Your task to perform on an android device: Open Reddit.com Image 0: 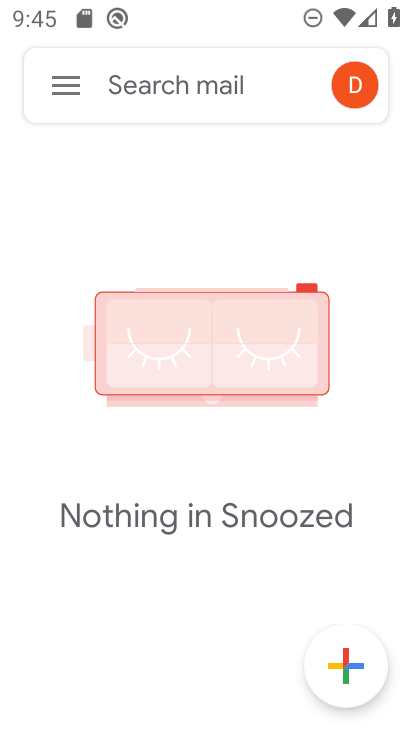
Step 0: press home button
Your task to perform on an android device: Open Reddit.com Image 1: 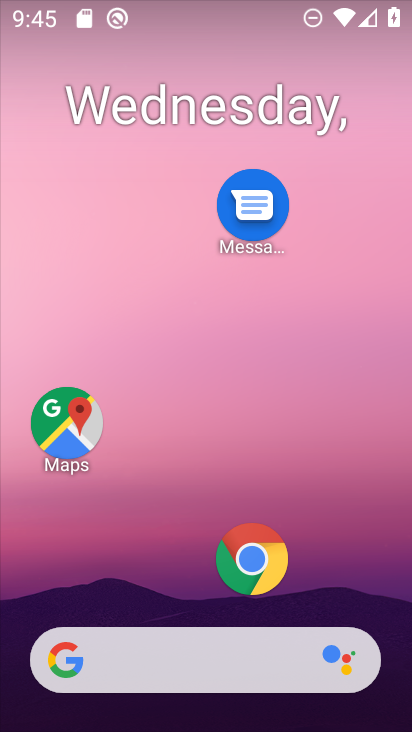
Step 1: drag from (298, 637) to (275, 213)
Your task to perform on an android device: Open Reddit.com Image 2: 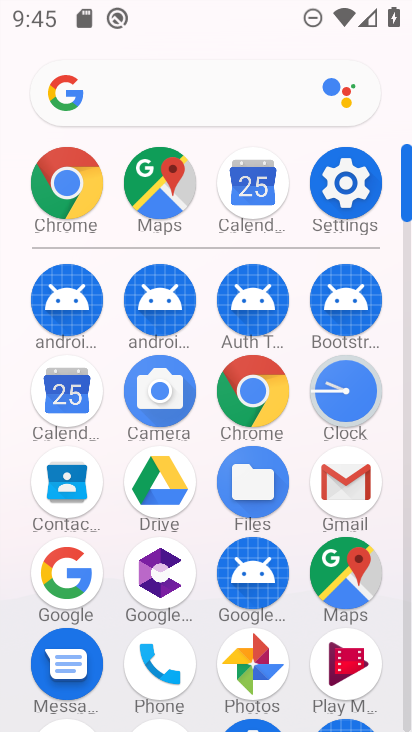
Step 2: click (86, 190)
Your task to perform on an android device: Open Reddit.com Image 3: 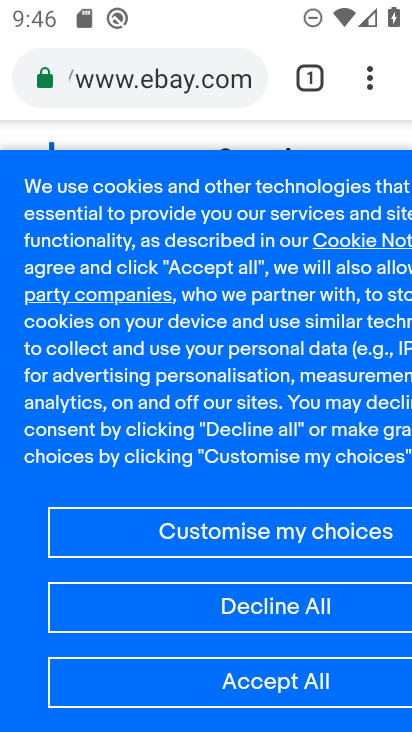
Step 3: click (214, 81)
Your task to perform on an android device: Open Reddit.com Image 4: 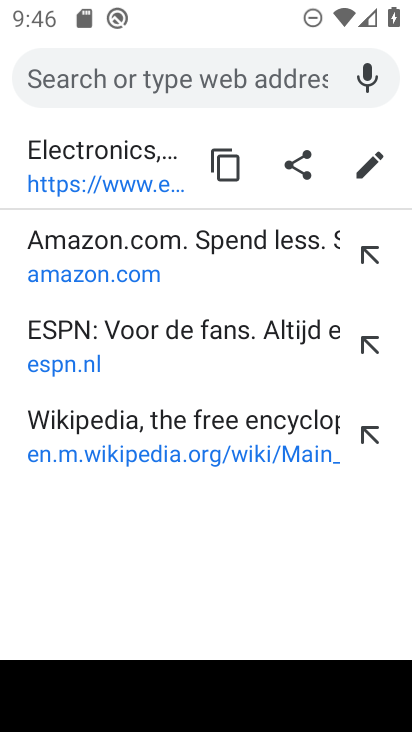
Step 4: type "reddit"
Your task to perform on an android device: Open Reddit.com Image 5: 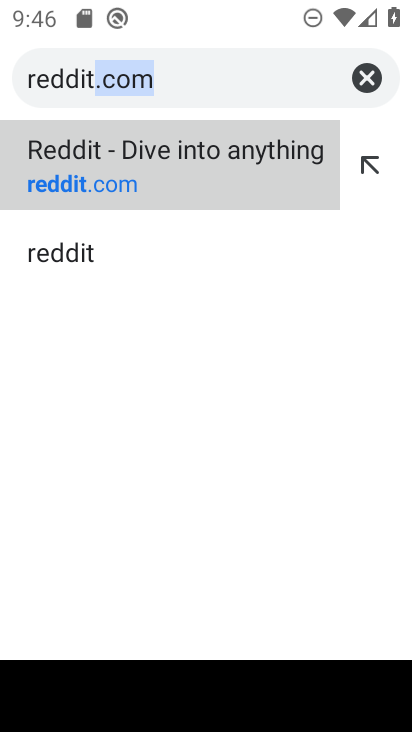
Step 5: click (188, 183)
Your task to perform on an android device: Open Reddit.com Image 6: 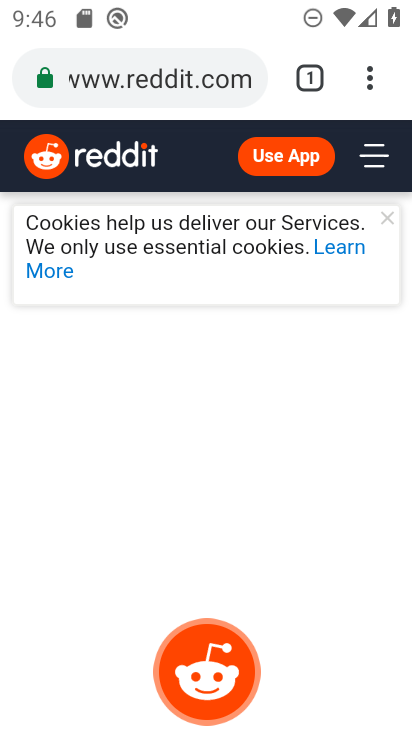
Step 6: task complete